Your task to perform on an android device: toggle translation in the chrome app Image 0: 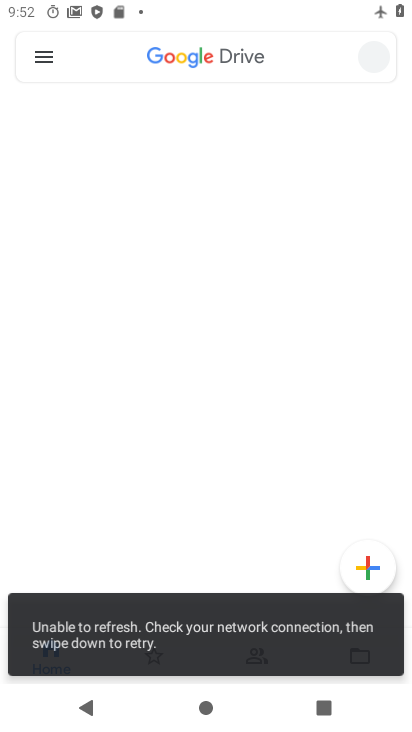
Step 0: drag from (320, 553) to (342, 9)
Your task to perform on an android device: toggle translation in the chrome app Image 1: 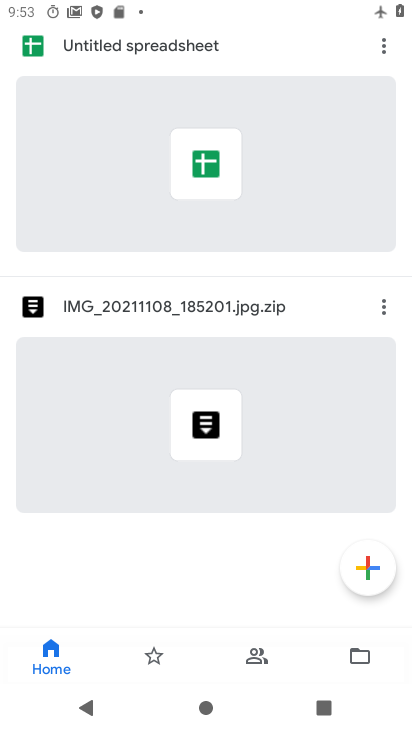
Step 1: press home button
Your task to perform on an android device: toggle translation in the chrome app Image 2: 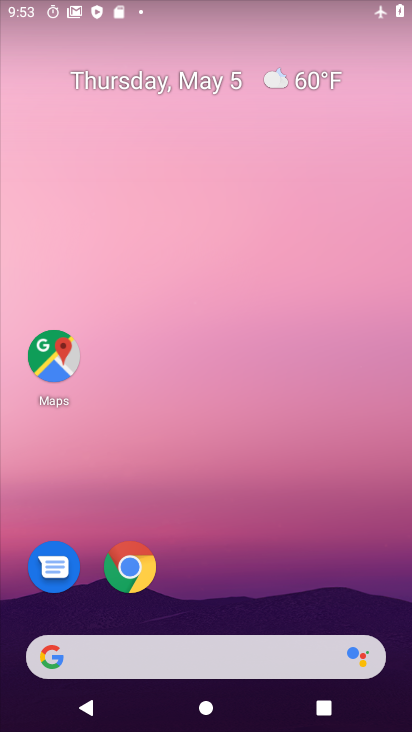
Step 2: click (125, 567)
Your task to perform on an android device: toggle translation in the chrome app Image 3: 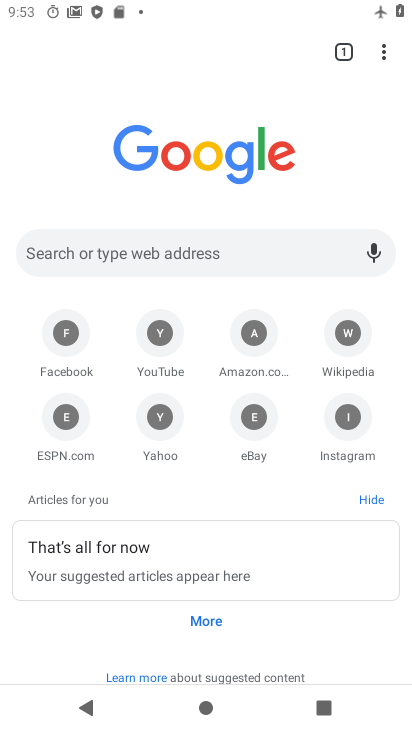
Step 3: drag from (389, 47) to (198, 439)
Your task to perform on an android device: toggle translation in the chrome app Image 4: 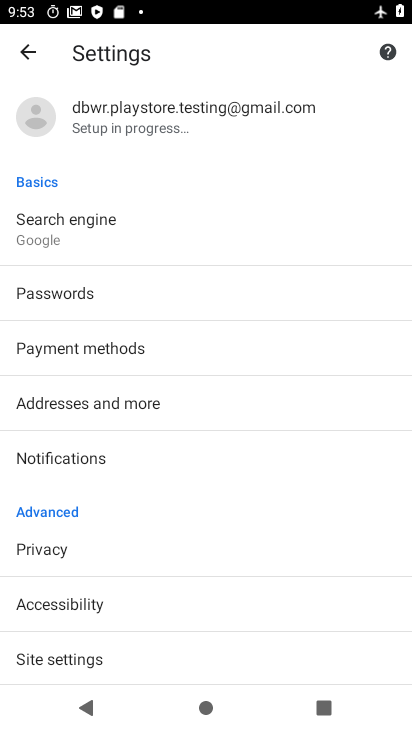
Step 4: drag from (144, 485) to (136, 171)
Your task to perform on an android device: toggle translation in the chrome app Image 5: 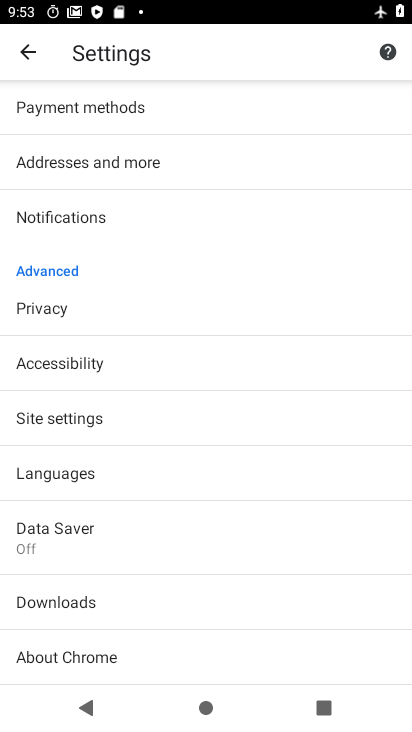
Step 5: click (56, 467)
Your task to perform on an android device: toggle translation in the chrome app Image 6: 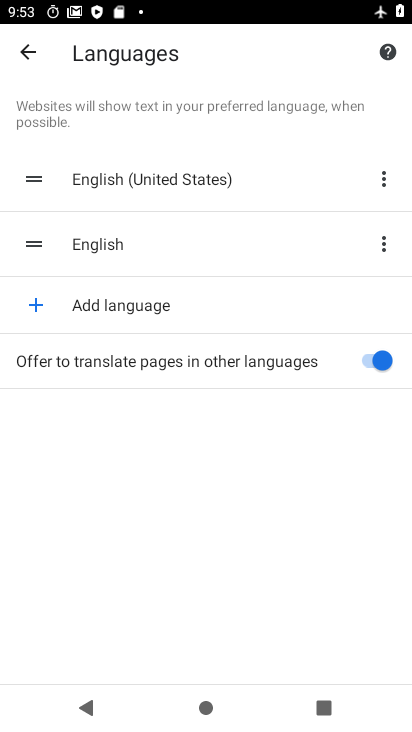
Step 6: click (373, 361)
Your task to perform on an android device: toggle translation in the chrome app Image 7: 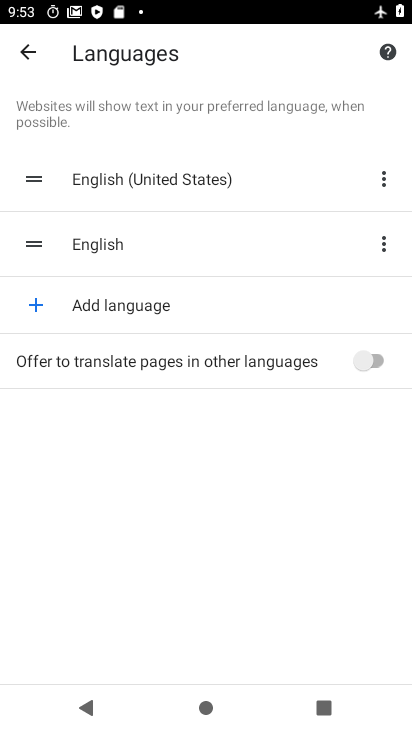
Step 7: task complete